Your task to perform on an android device: Open Google Maps and go to "Timeline" Image 0: 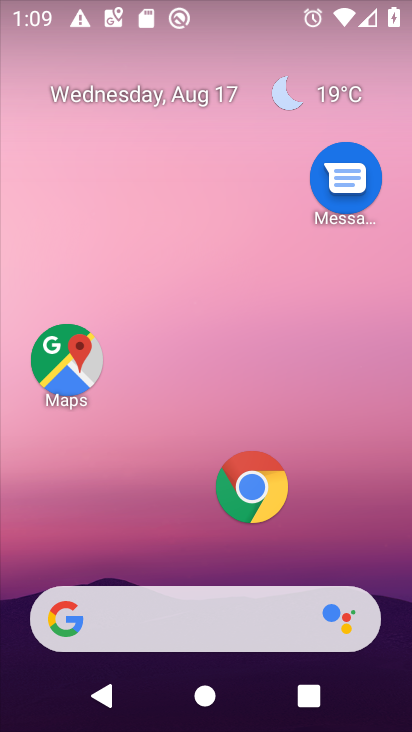
Step 0: click (61, 363)
Your task to perform on an android device: Open Google Maps and go to "Timeline" Image 1: 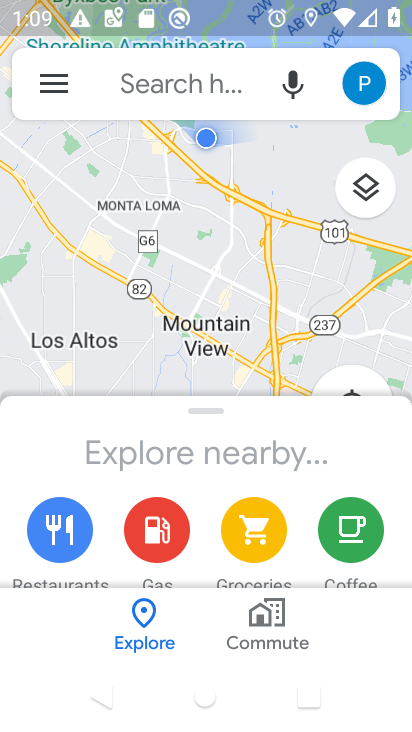
Step 1: click (51, 96)
Your task to perform on an android device: Open Google Maps and go to "Timeline" Image 2: 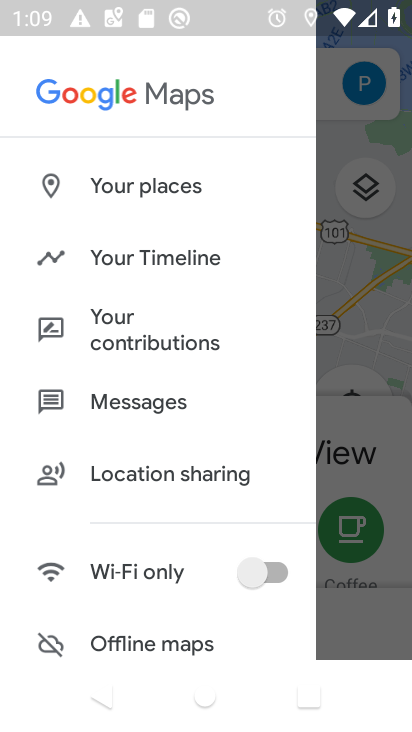
Step 2: click (211, 247)
Your task to perform on an android device: Open Google Maps and go to "Timeline" Image 3: 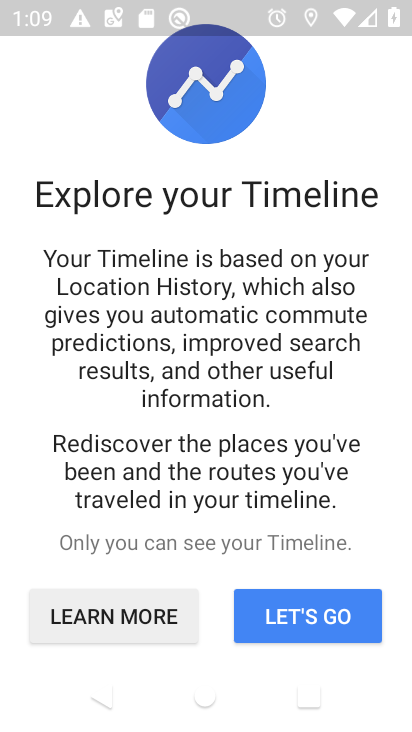
Step 3: task complete